Your task to perform on an android device: change the clock display to analog Image 0: 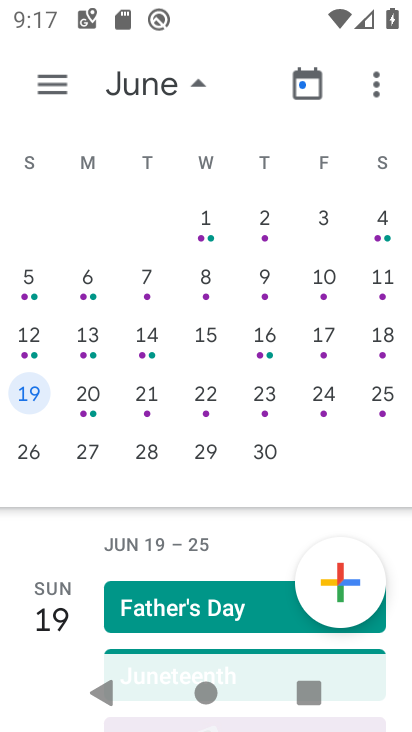
Step 0: press home button
Your task to perform on an android device: change the clock display to analog Image 1: 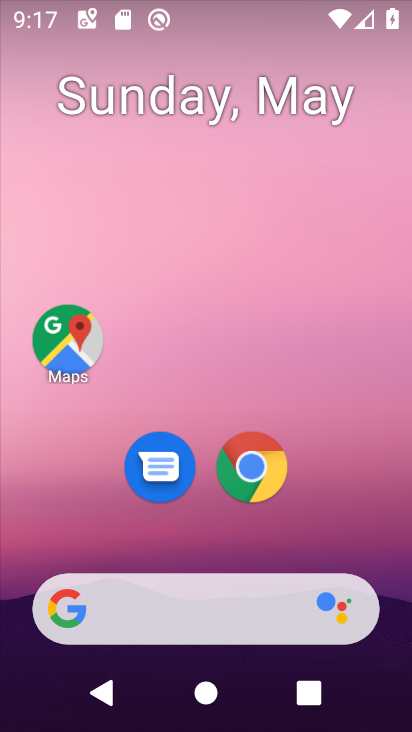
Step 1: drag from (386, 522) to (359, 198)
Your task to perform on an android device: change the clock display to analog Image 2: 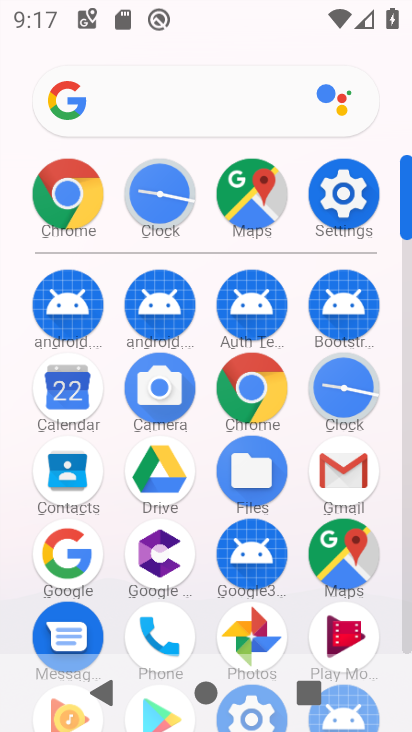
Step 2: click (343, 404)
Your task to perform on an android device: change the clock display to analog Image 3: 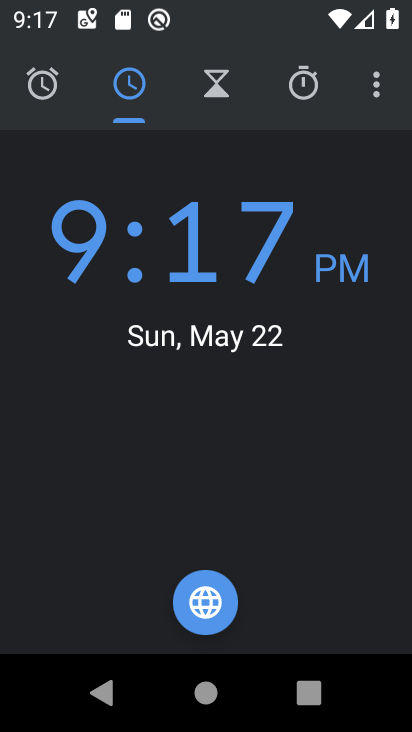
Step 3: click (382, 93)
Your task to perform on an android device: change the clock display to analog Image 4: 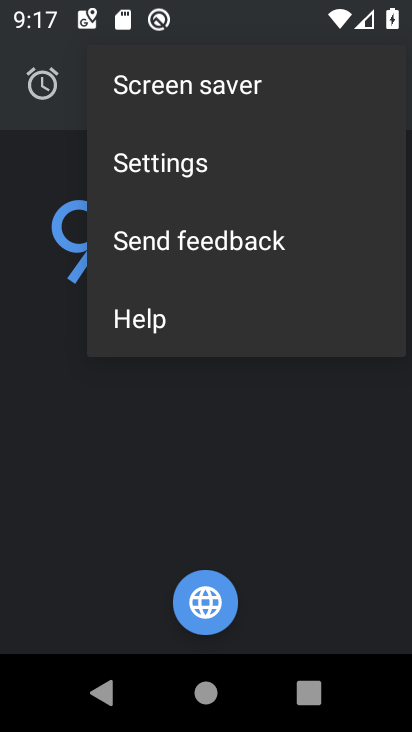
Step 4: click (191, 160)
Your task to perform on an android device: change the clock display to analog Image 5: 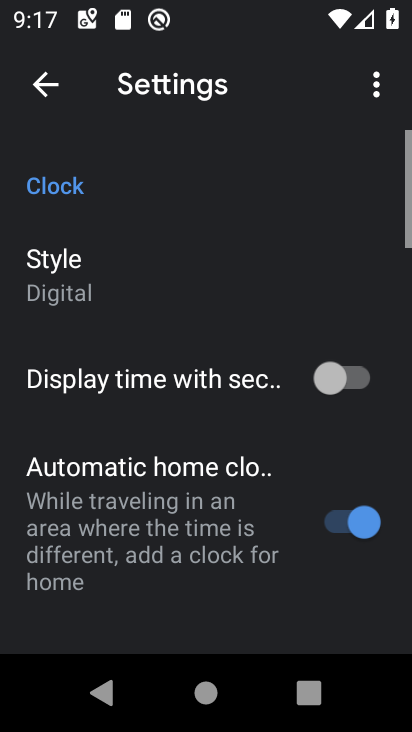
Step 5: click (147, 260)
Your task to perform on an android device: change the clock display to analog Image 6: 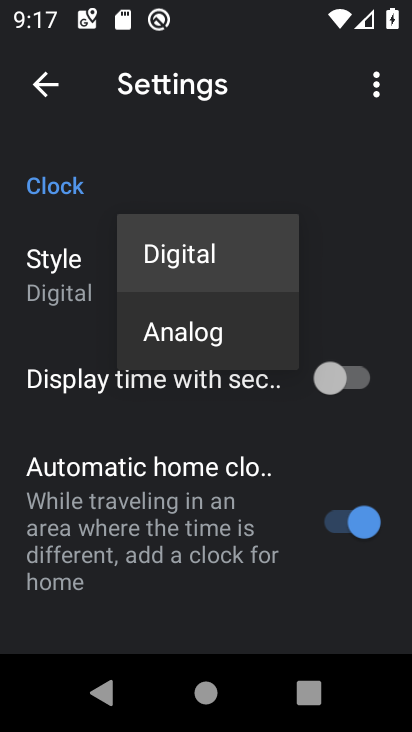
Step 6: click (145, 330)
Your task to perform on an android device: change the clock display to analog Image 7: 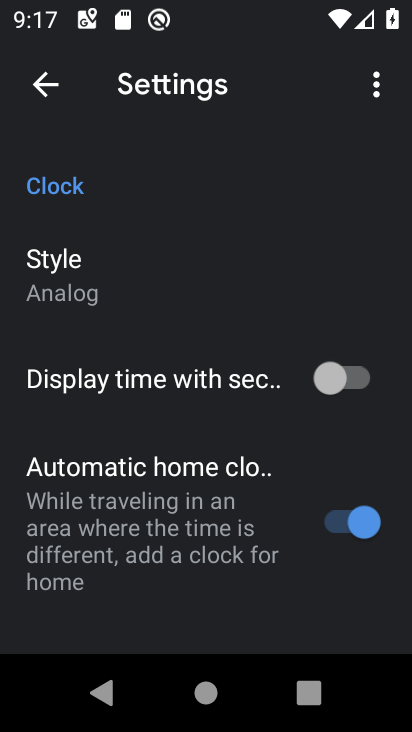
Step 7: task complete